Your task to perform on an android device: find photos in the google photos app Image 0: 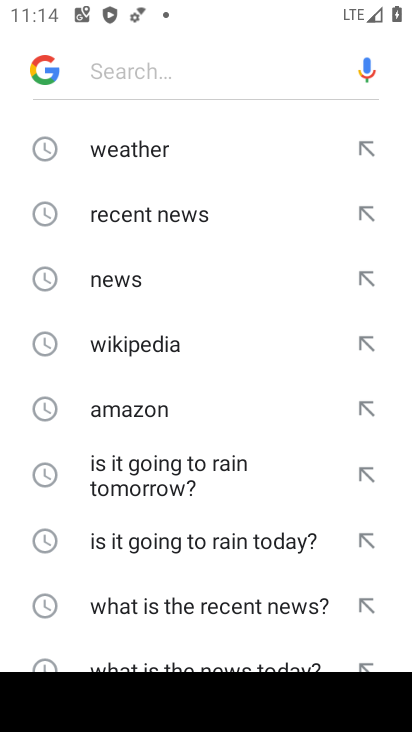
Step 0: press home button
Your task to perform on an android device: find photos in the google photos app Image 1: 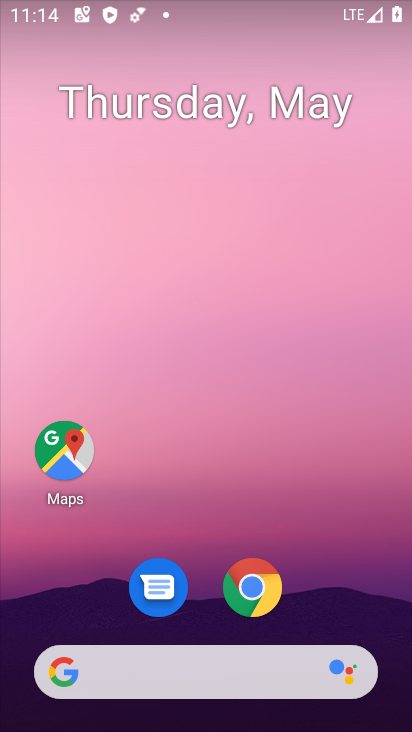
Step 1: drag from (72, 632) to (193, 184)
Your task to perform on an android device: find photos in the google photos app Image 2: 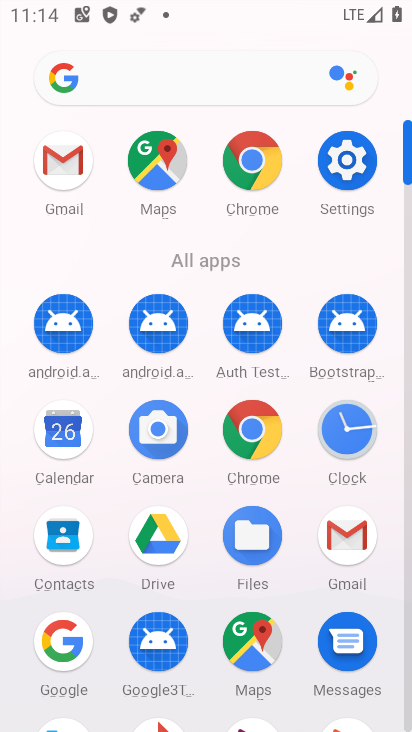
Step 2: drag from (191, 687) to (272, 442)
Your task to perform on an android device: find photos in the google photos app Image 3: 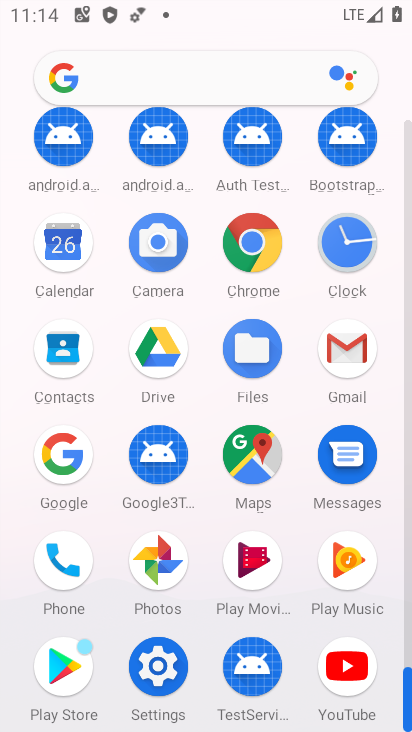
Step 3: drag from (221, 628) to (270, 462)
Your task to perform on an android device: find photos in the google photos app Image 4: 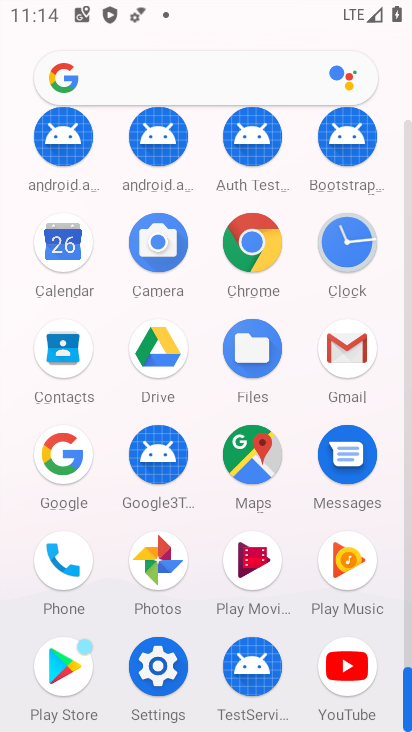
Step 4: click (178, 568)
Your task to perform on an android device: find photos in the google photos app Image 5: 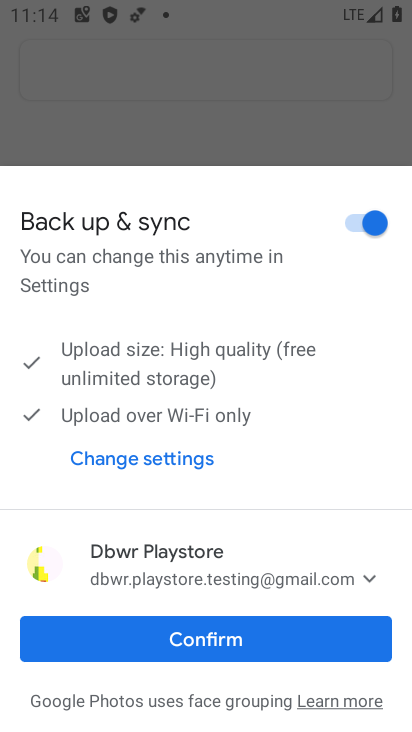
Step 5: click (199, 643)
Your task to perform on an android device: find photos in the google photos app Image 6: 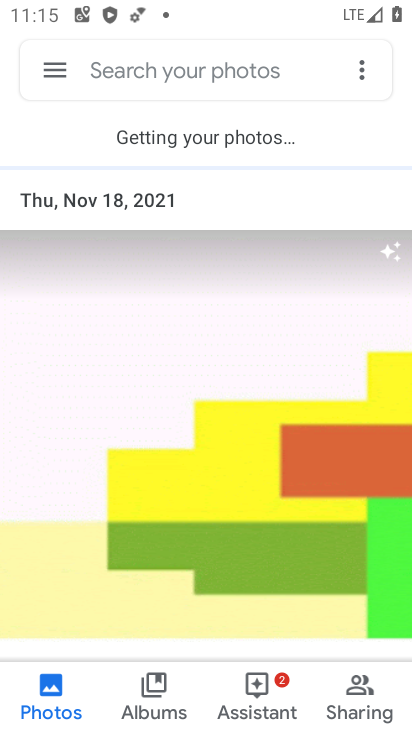
Step 6: task complete